Your task to perform on an android device: Open eBay Image 0: 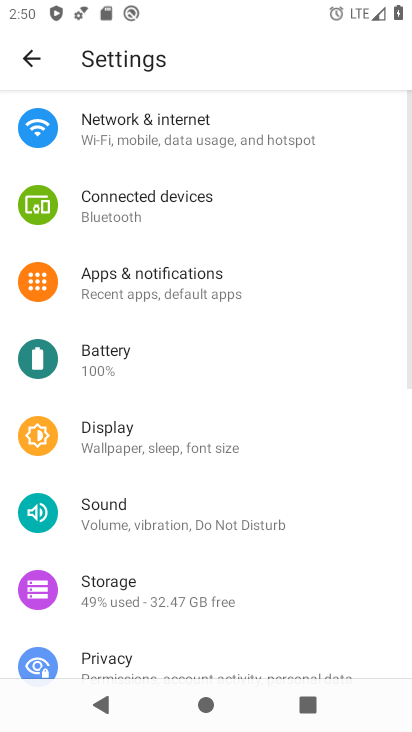
Step 0: press home button
Your task to perform on an android device: Open eBay Image 1: 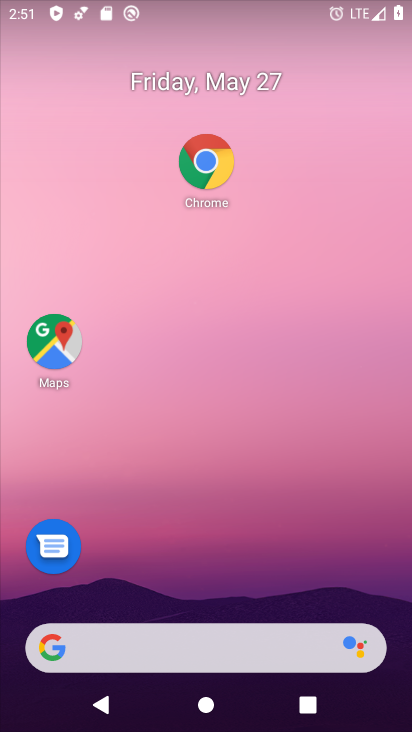
Step 1: click (207, 151)
Your task to perform on an android device: Open eBay Image 2: 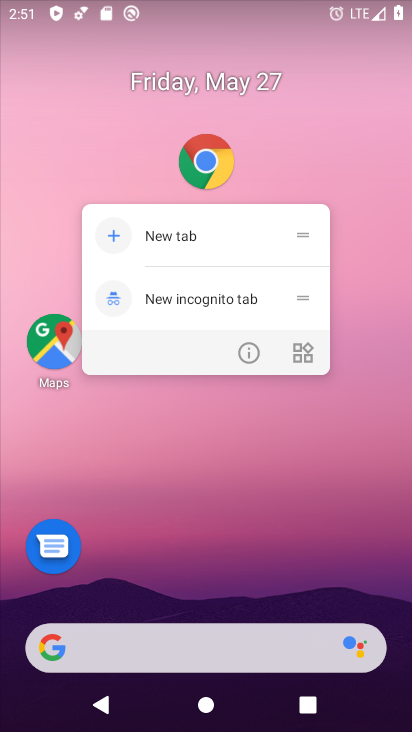
Step 2: click (205, 157)
Your task to perform on an android device: Open eBay Image 3: 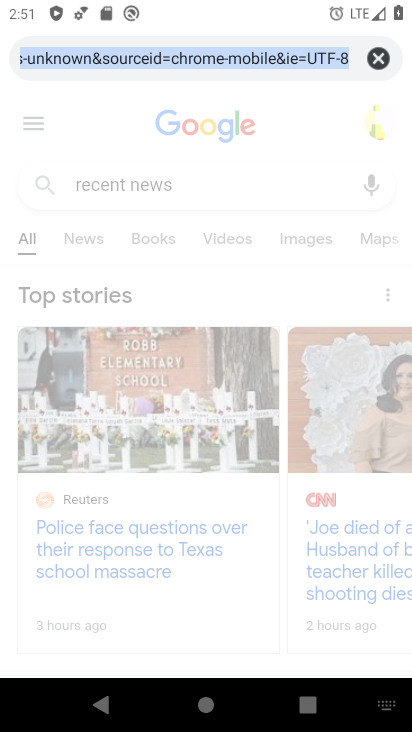
Step 3: type "eBay"
Your task to perform on an android device: Open eBay Image 4: 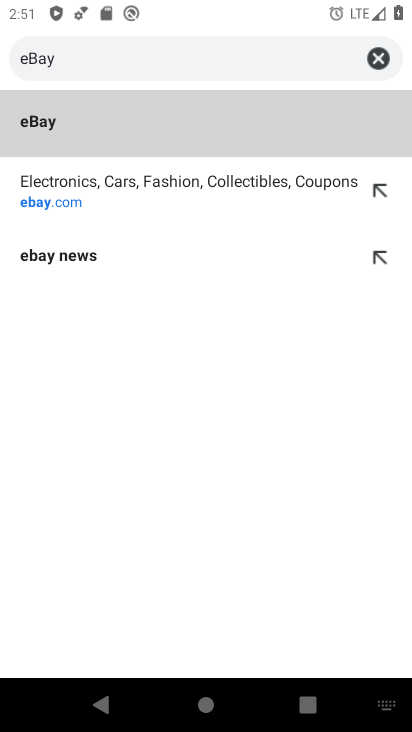
Step 4: click (107, 133)
Your task to perform on an android device: Open eBay Image 5: 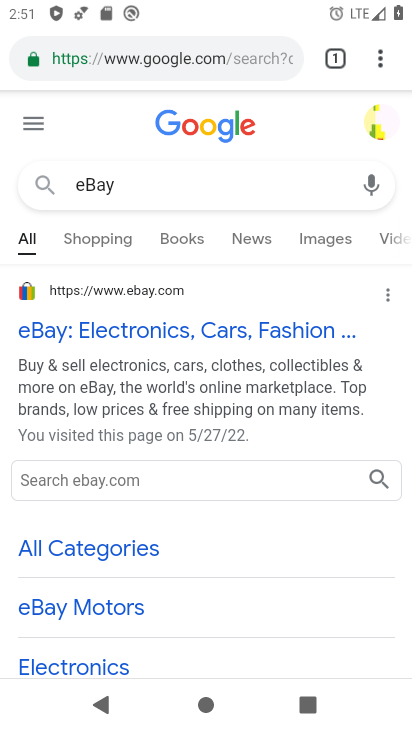
Step 5: task complete